Your task to perform on an android device: Open accessibility settings Image 0: 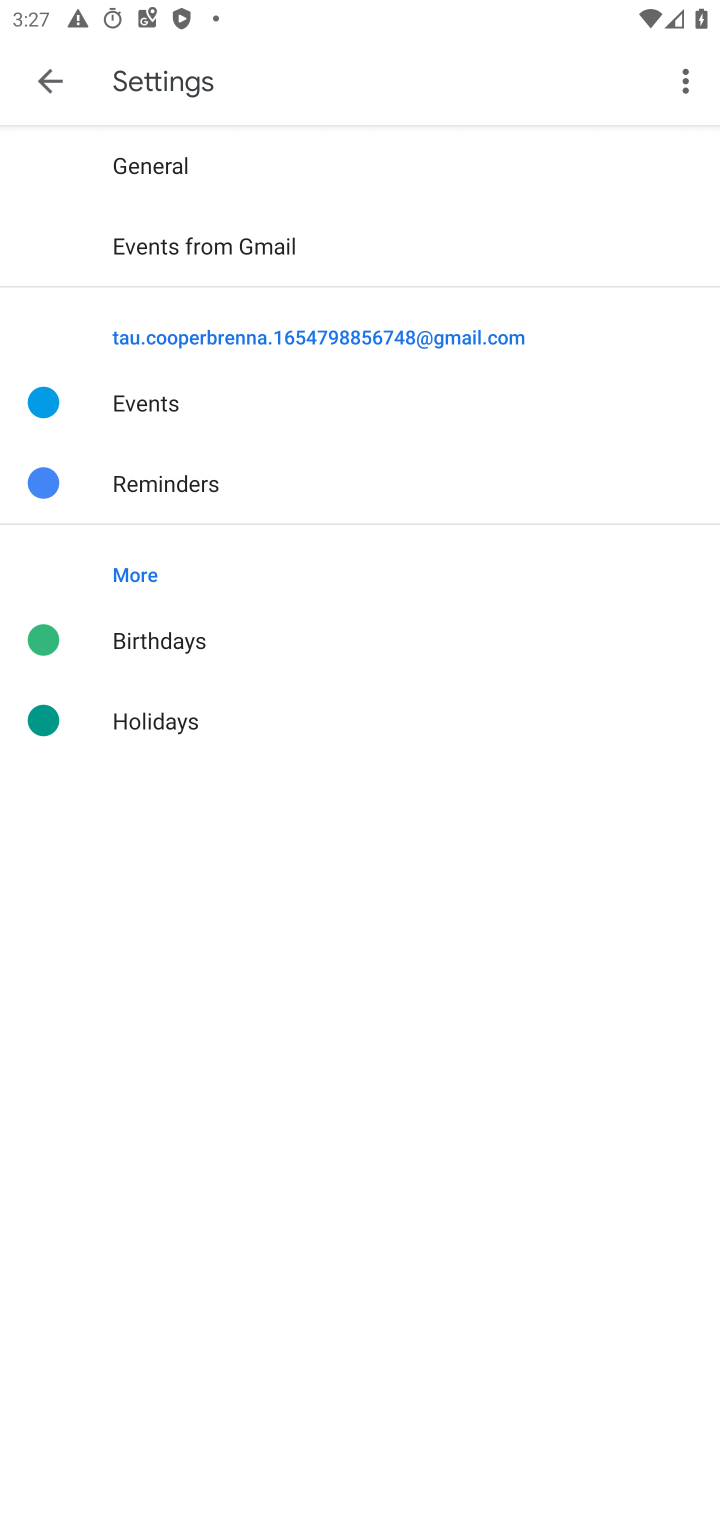
Step 0: press home button
Your task to perform on an android device: Open accessibility settings Image 1: 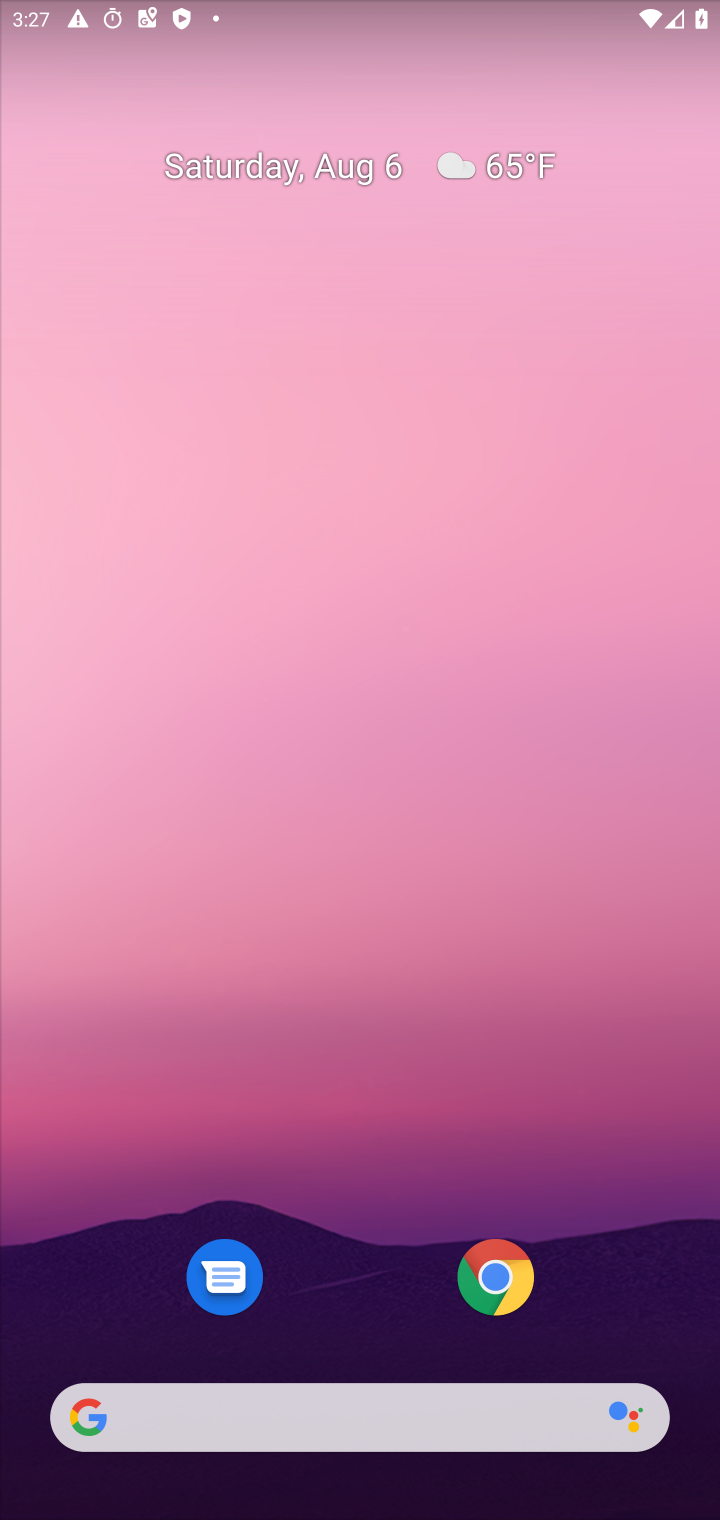
Step 1: drag from (377, 1416) to (449, 0)
Your task to perform on an android device: Open accessibility settings Image 2: 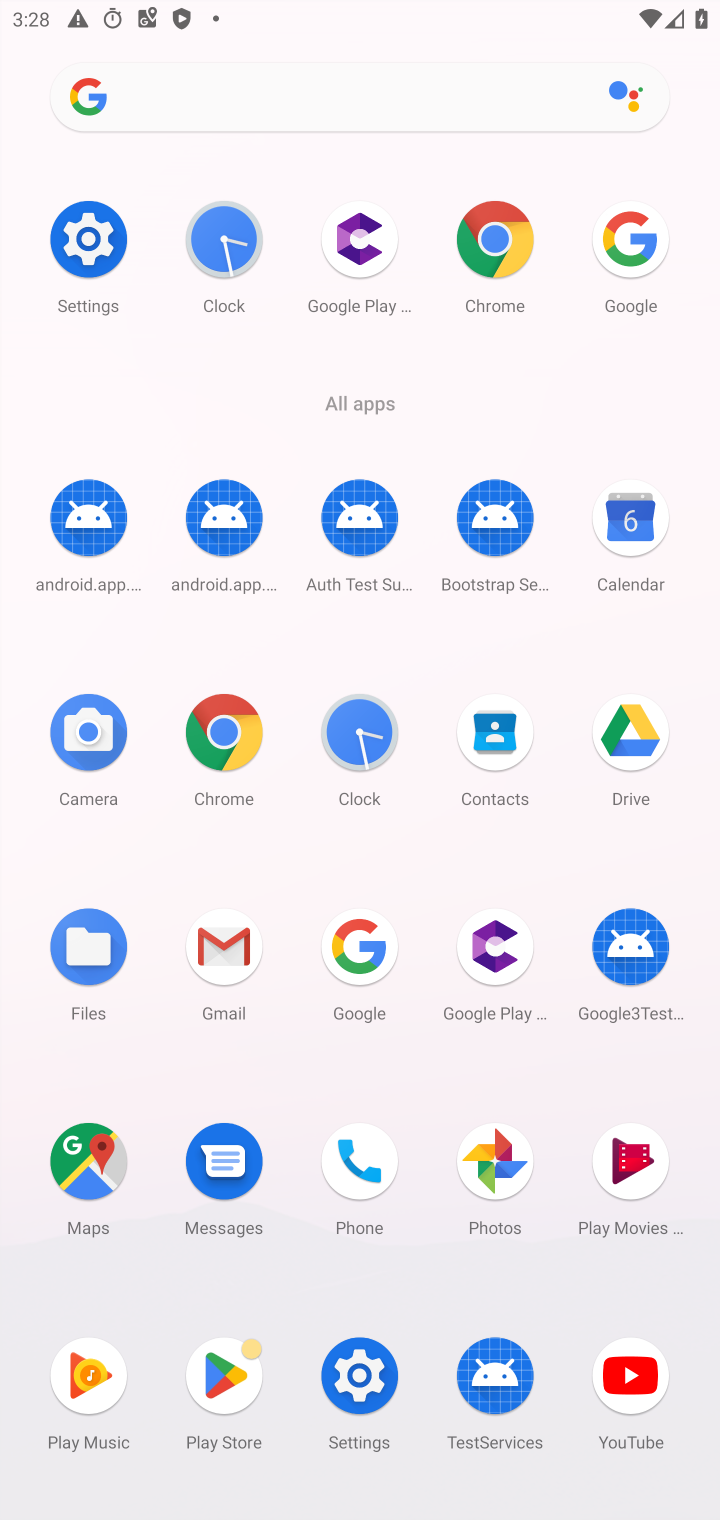
Step 2: click (361, 1364)
Your task to perform on an android device: Open accessibility settings Image 3: 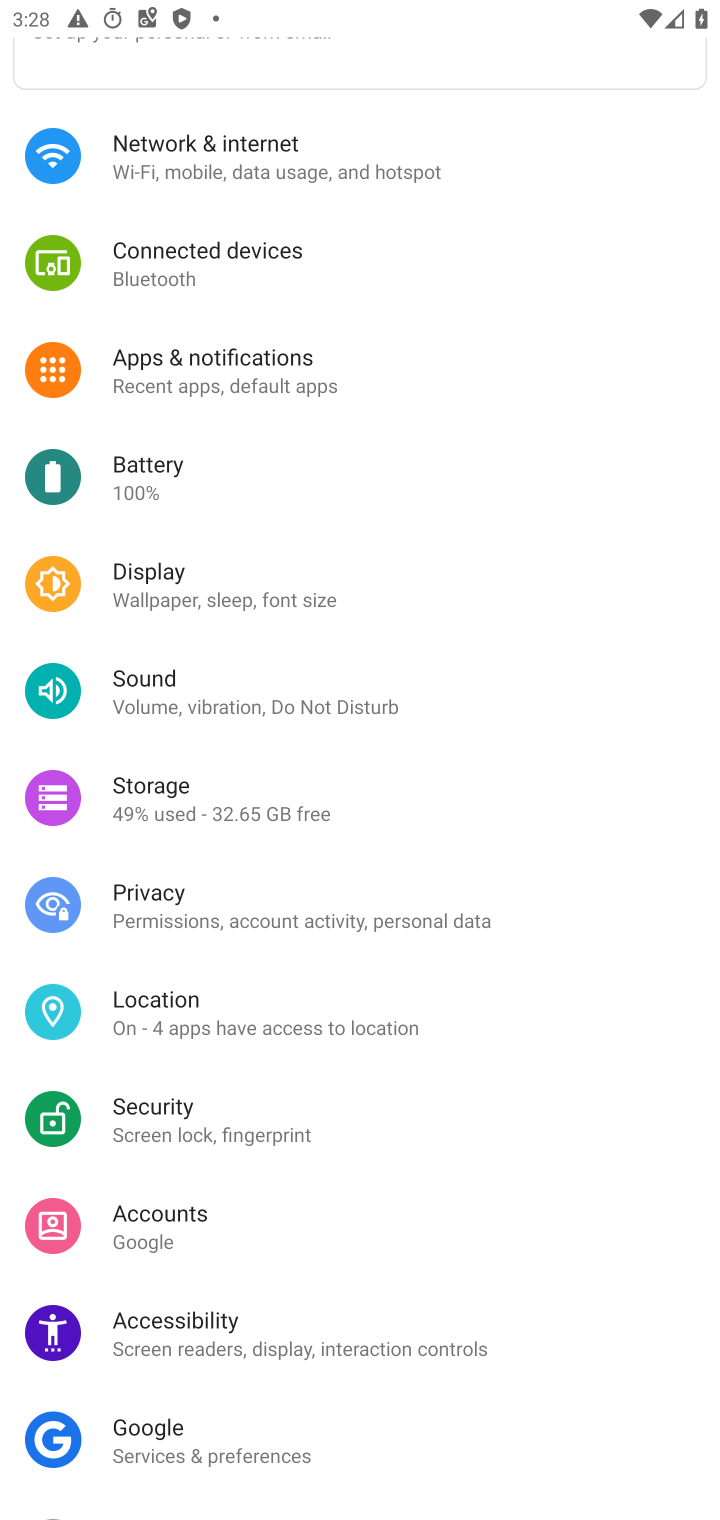
Step 3: click (173, 1319)
Your task to perform on an android device: Open accessibility settings Image 4: 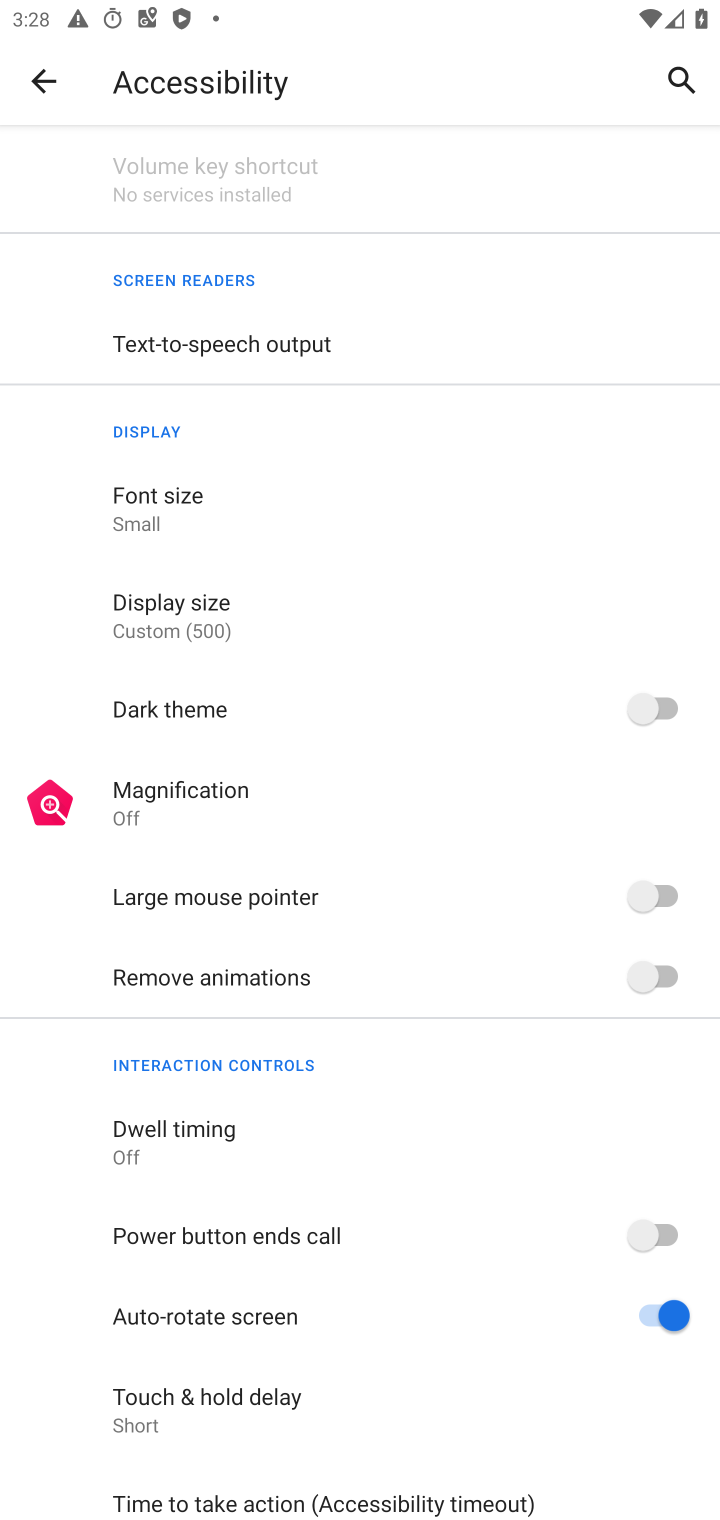
Step 4: task complete